Your task to perform on an android device: toggle wifi Image 0: 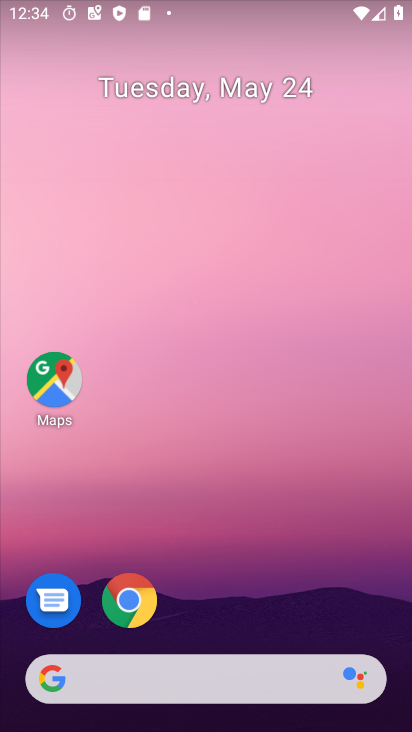
Step 0: drag from (208, 551) to (191, 106)
Your task to perform on an android device: toggle wifi Image 1: 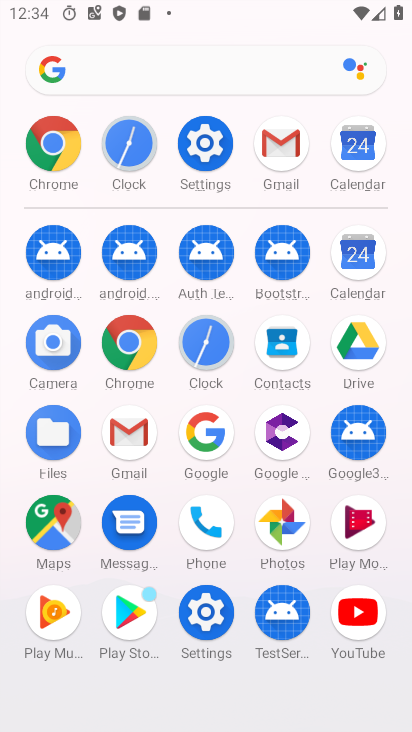
Step 1: click (195, 148)
Your task to perform on an android device: toggle wifi Image 2: 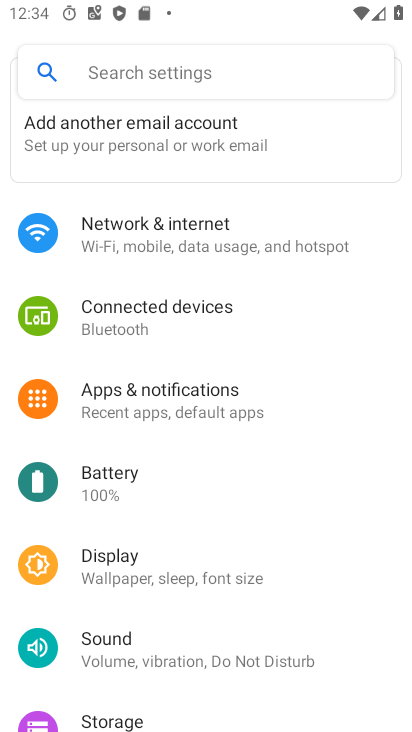
Step 2: click (172, 228)
Your task to perform on an android device: toggle wifi Image 3: 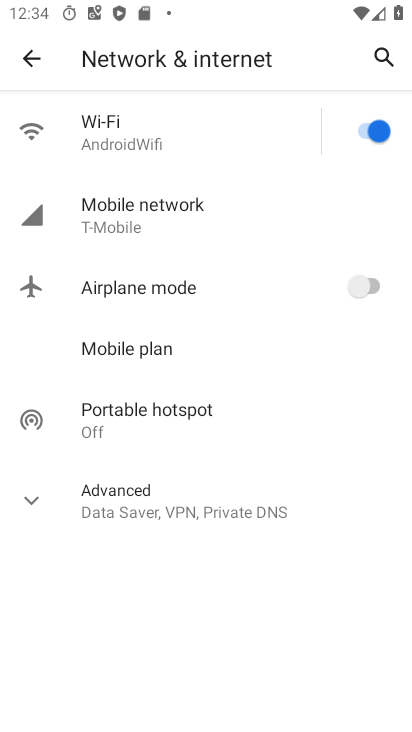
Step 3: click (373, 114)
Your task to perform on an android device: toggle wifi Image 4: 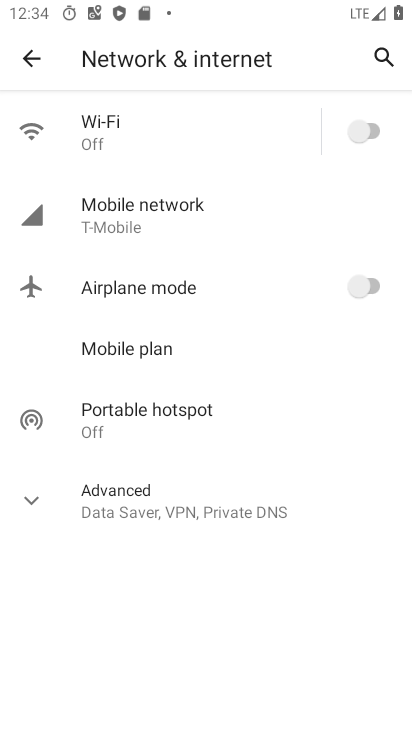
Step 4: task complete